Your task to perform on an android device: check google app version Image 0: 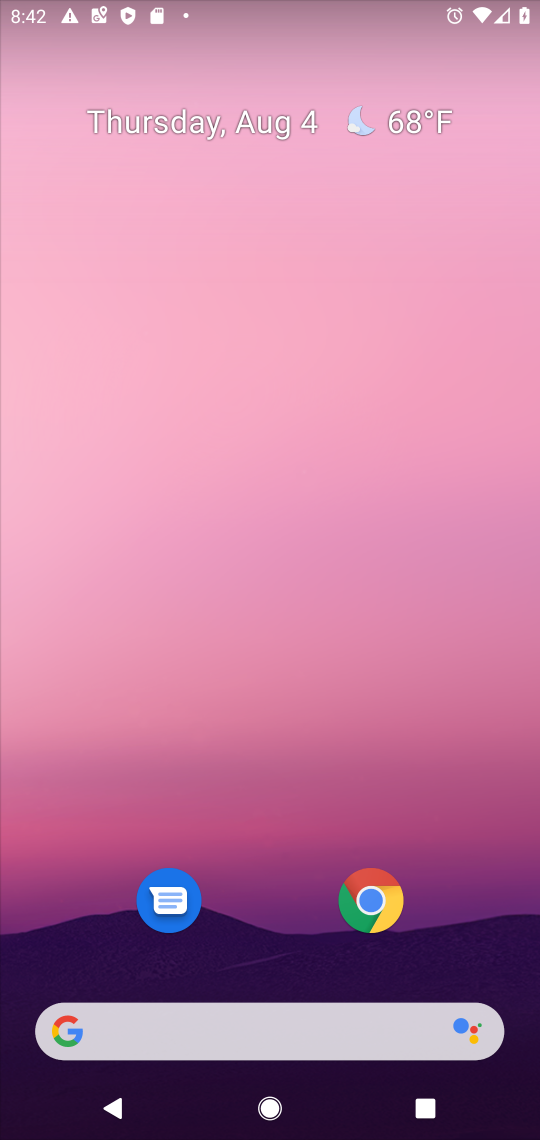
Step 0: press home button
Your task to perform on an android device: check google app version Image 1: 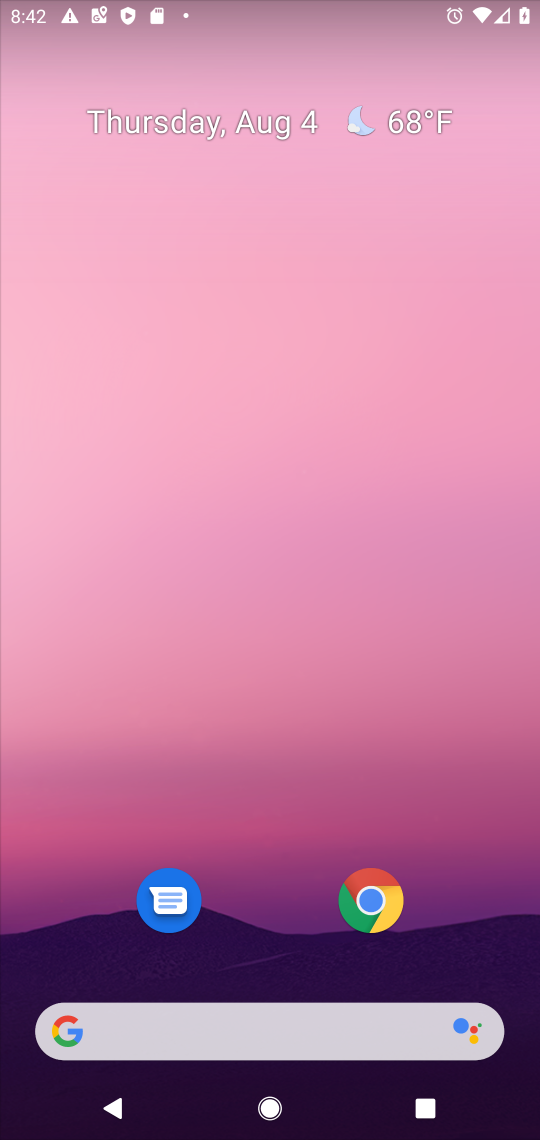
Step 1: drag from (255, 998) to (138, 60)
Your task to perform on an android device: check google app version Image 2: 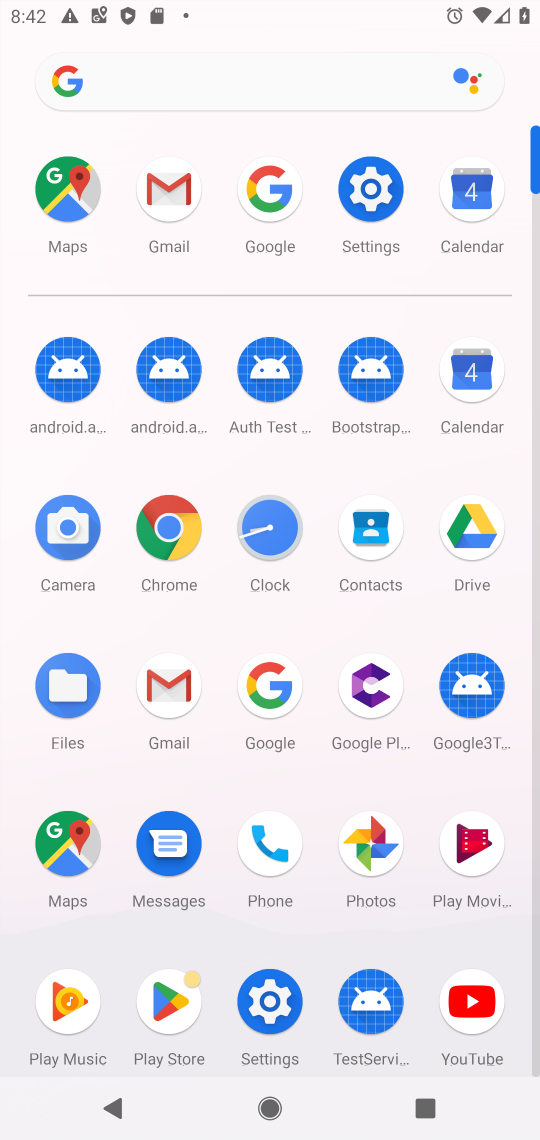
Step 2: click (273, 687)
Your task to perform on an android device: check google app version Image 3: 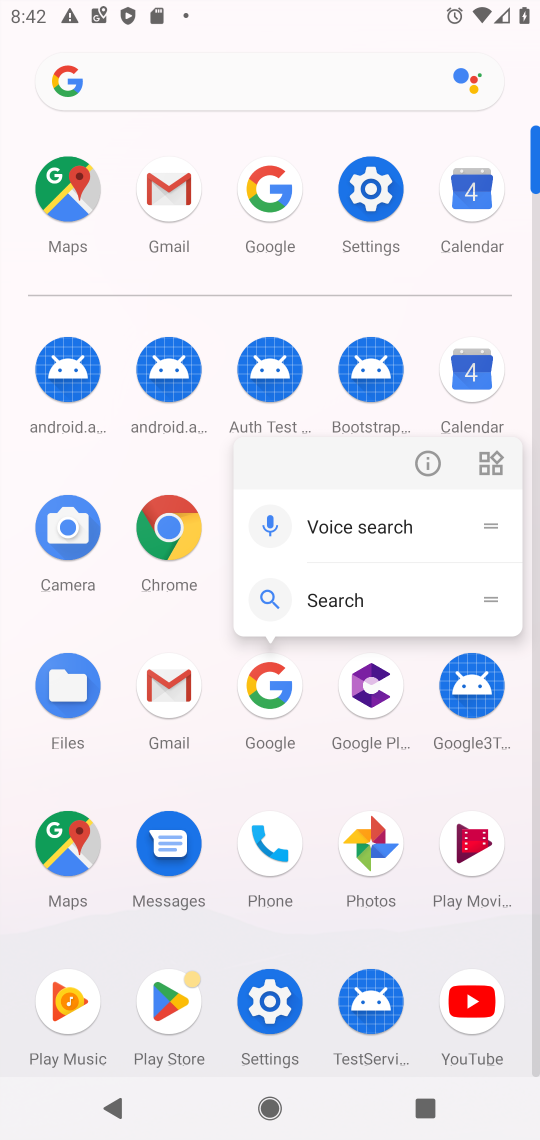
Step 3: click (423, 454)
Your task to perform on an android device: check google app version Image 4: 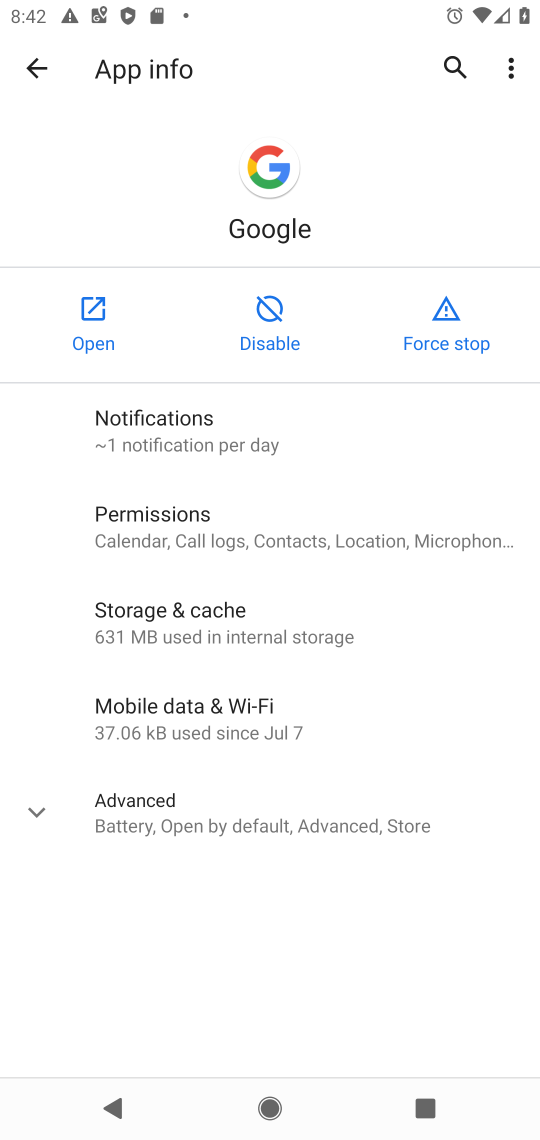
Step 4: click (215, 824)
Your task to perform on an android device: check google app version Image 5: 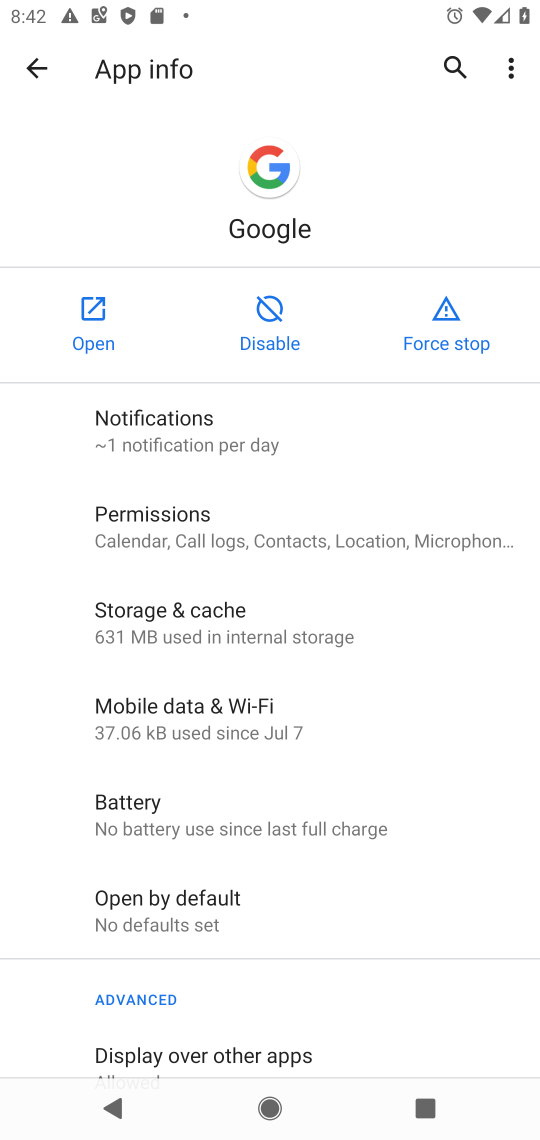
Step 5: task complete